Your task to perform on an android device: Show me productivity apps on the Play Store Image 0: 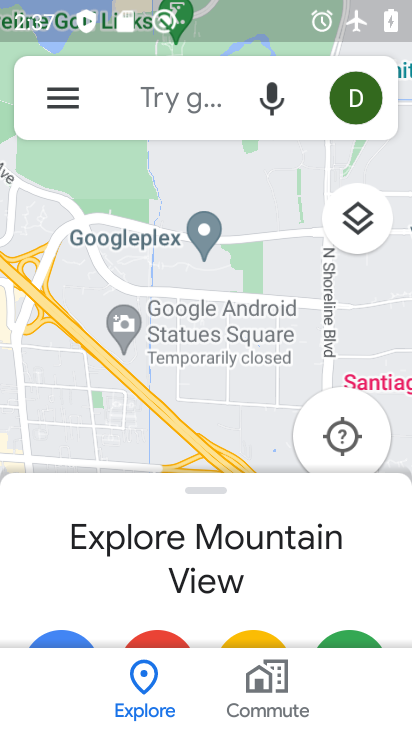
Step 0: press home button
Your task to perform on an android device: Show me productivity apps on the Play Store Image 1: 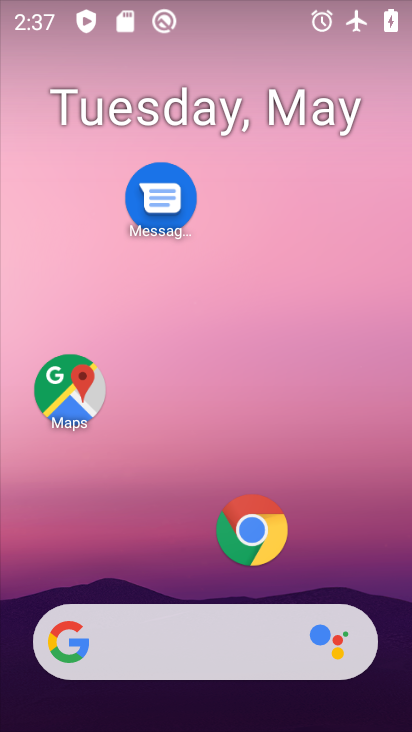
Step 1: drag from (247, 520) to (277, 159)
Your task to perform on an android device: Show me productivity apps on the Play Store Image 2: 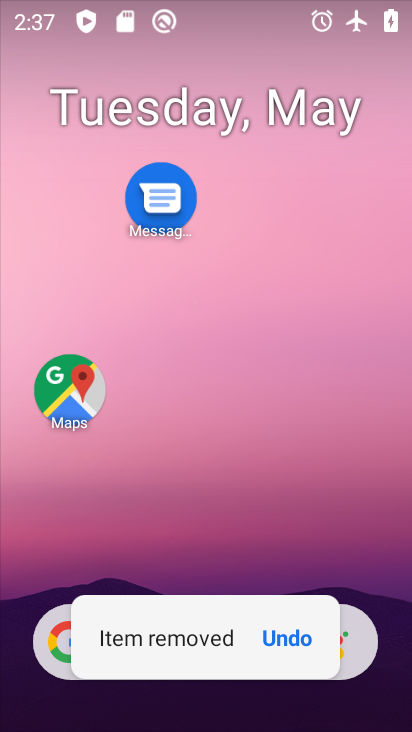
Step 2: drag from (200, 562) to (258, 149)
Your task to perform on an android device: Show me productivity apps on the Play Store Image 3: 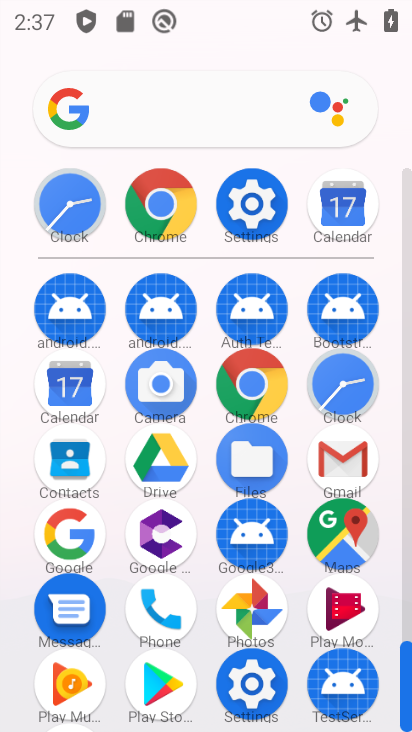
Step 3: click (156, 679)
Your task to perform on an android device: Show me productivity apps on the Play Store Image 4: 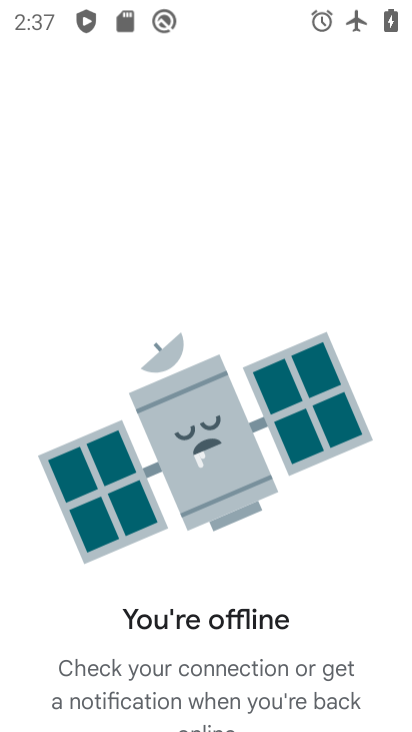
Step 4: task complete